Your task to perform on an android device: Open the web browser Image 0: 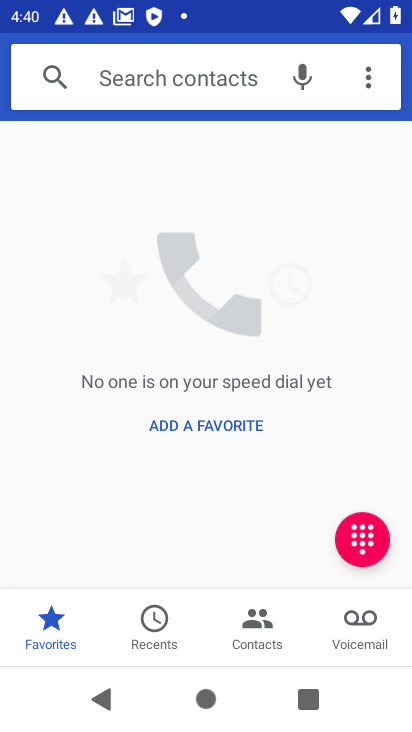
Step 0: press home button
Your task to perform on an android device: Open the web browser Image 1: 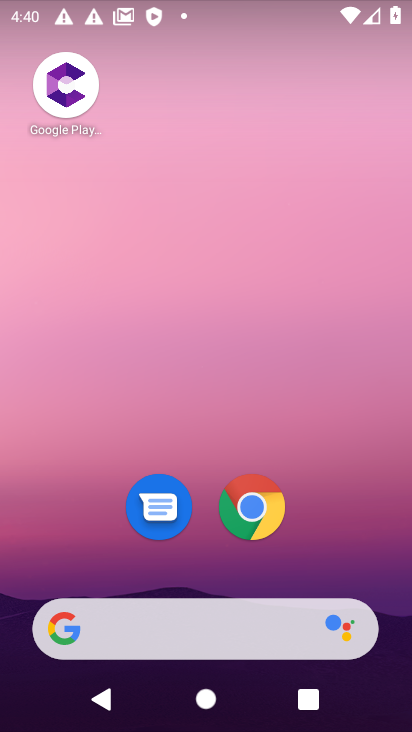
Step 1: drag from (182, 554) to (154, 155)
Your task to perform on an android device: Open the web browser Image 2: 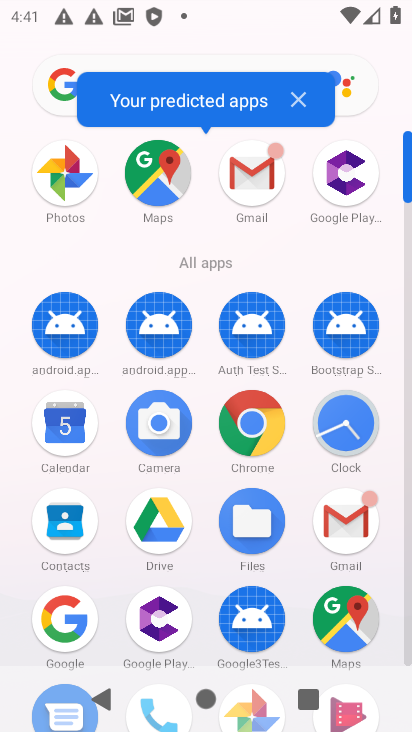
Step 2: click (246, 430)
Your task to perform on an android device: Open the web browser Image 3: 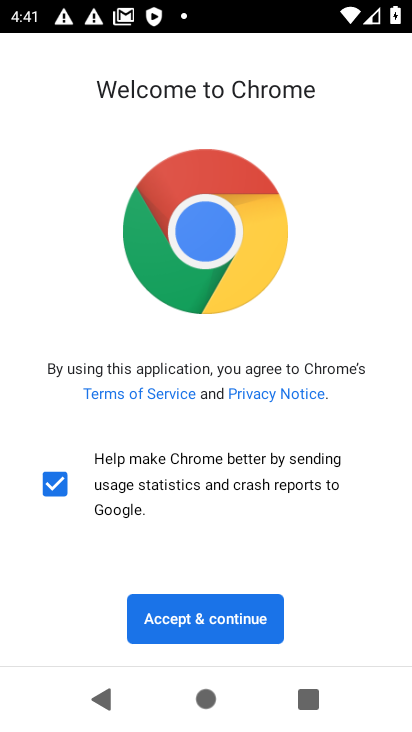
Step 3: click (201, 625)
Your task to perform on an android device: Open the web browser Image 4: 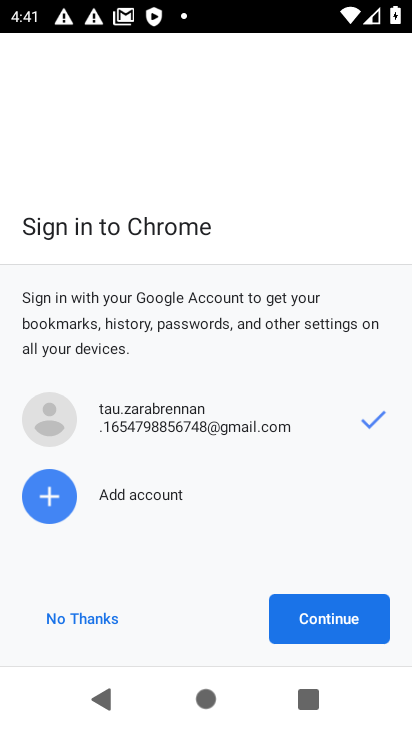
Step 4: click (326, 626)
Your task to perform on an android device: Open the web browser Image 5: 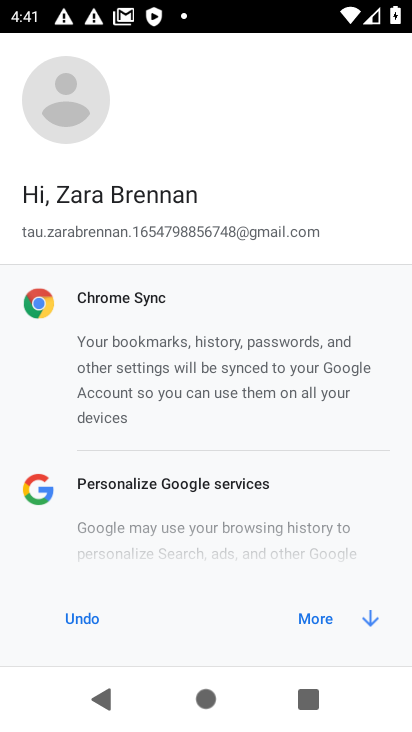
Step 5: click (322, 616)
Your task to perform on an android device: Open the web browser Image 6: 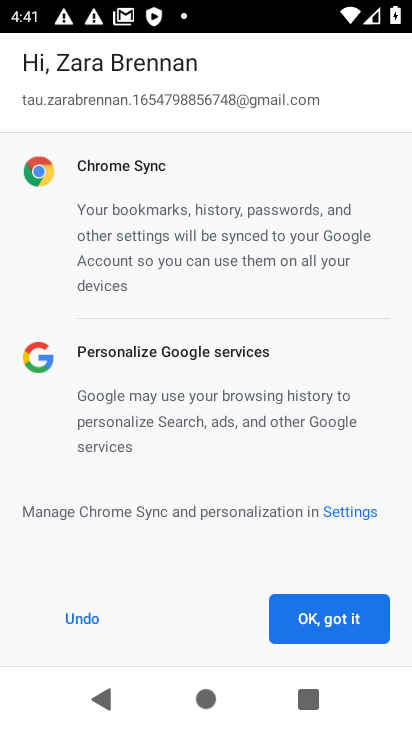
Step 6: click (322, 616)
Your task to perform on an android device: Open the web browser Image 7: 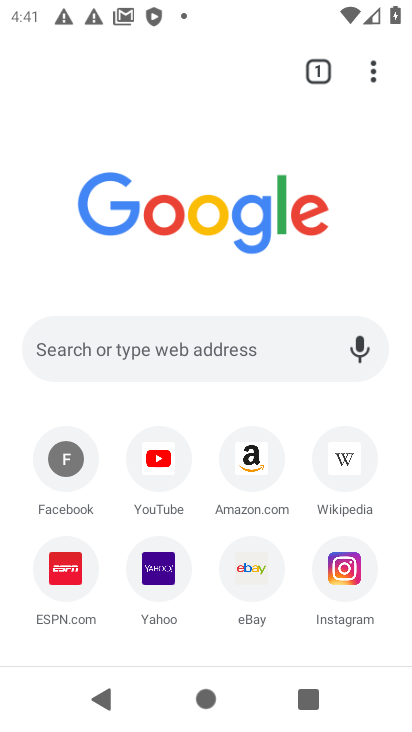
Step 7: task complete